Your task to perform on an android device: Open Google Maps Image 0: 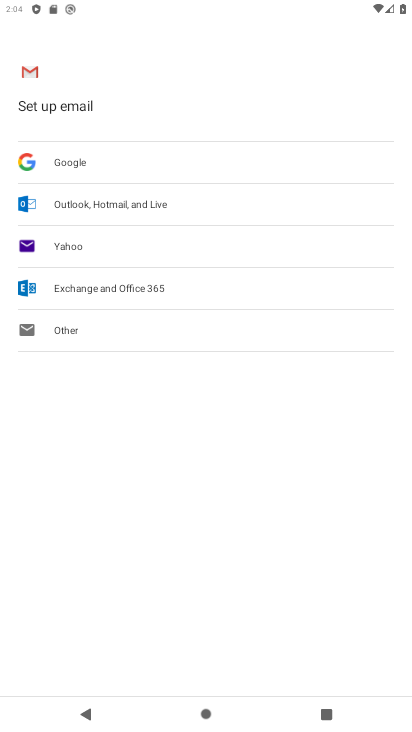
Step 0: press home button
Your task to perform on an android device: Open Google Maps Image 1: 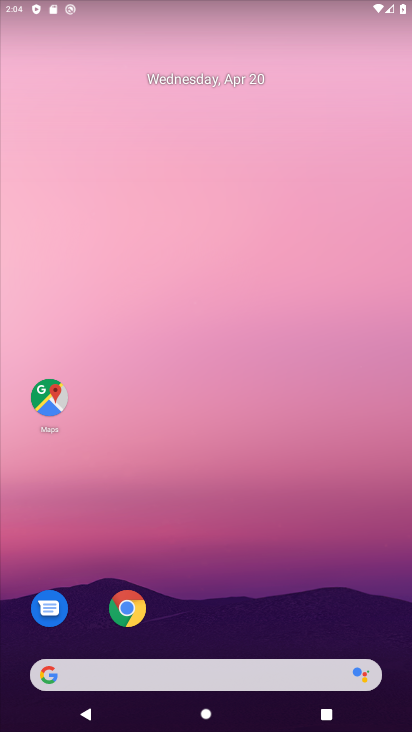
Step 1: drag from (364, 559) to (326, 193)
Your task to perform on an android device: Open Google Maps Image 2: 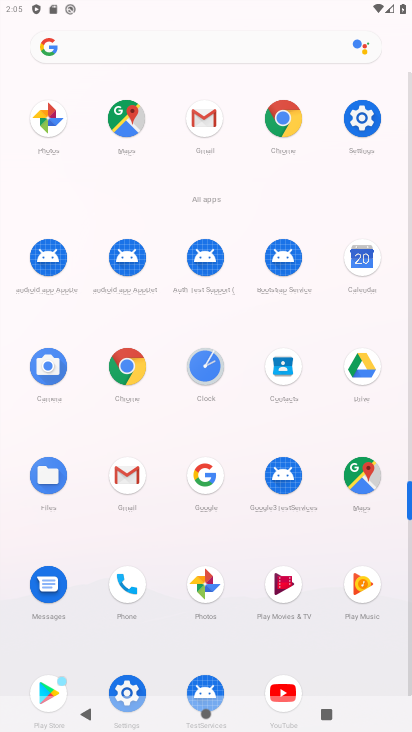
Step 2: click (361, 469)
Your task to perform on an android device: Open Google Maps Image 3: 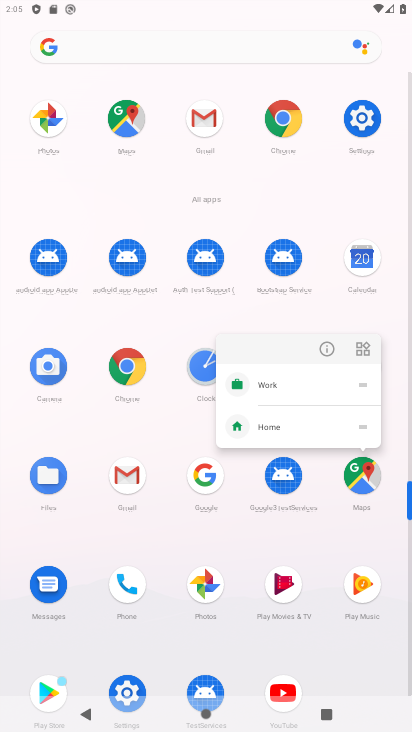
Step 3: click (354, 467)
Your task to perform on an android device: Open Google Maps Image 4: 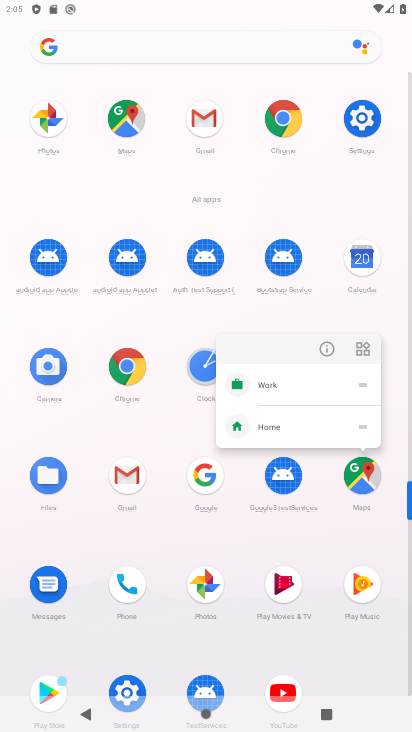
Step 4: click (353, 468)
Your task to perform on an android device: Open Google Maps Image 5: 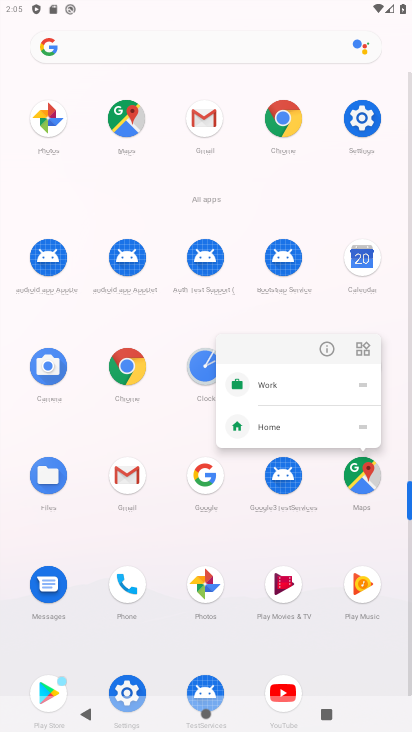
Step 5: click (353, 473)
Your task to perform on an android device: Open Google Maps Image 6: 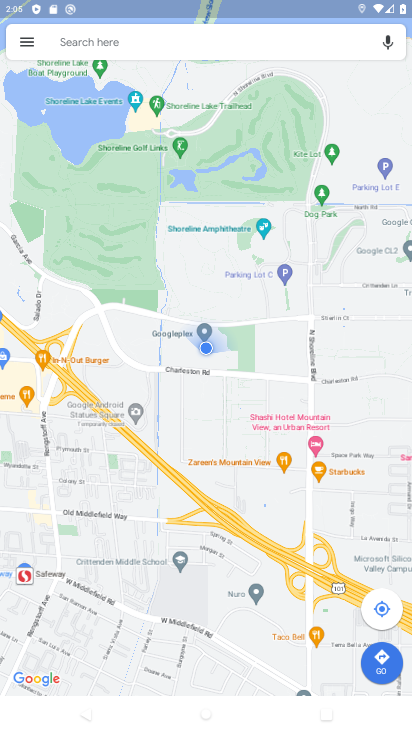
Step 6: task complete